Your task to perform on an android device: open app "Contacts" (install if not already installed) Image 0: 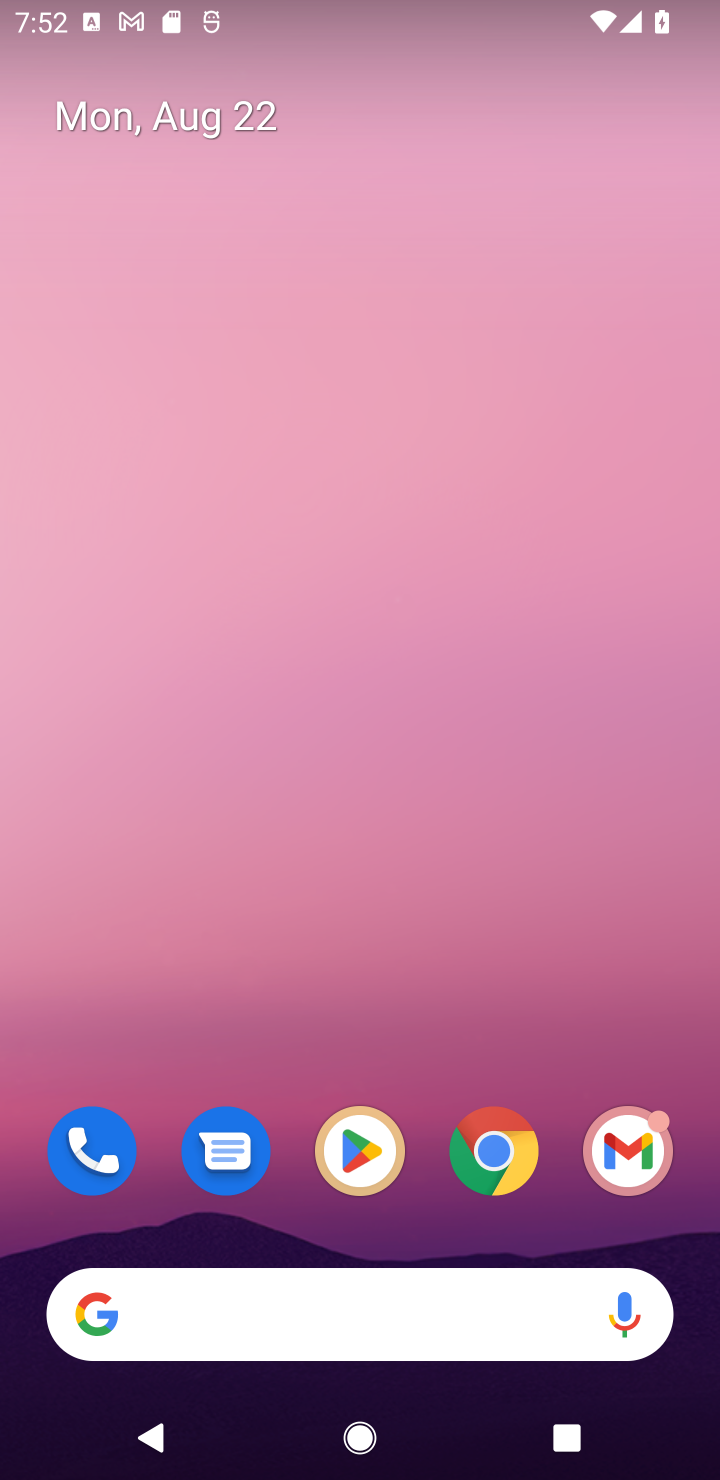
Step 0: click (358, 1154)
Your task to perform on an android device: open app "Contacts" (install if not already installed) Image 1: 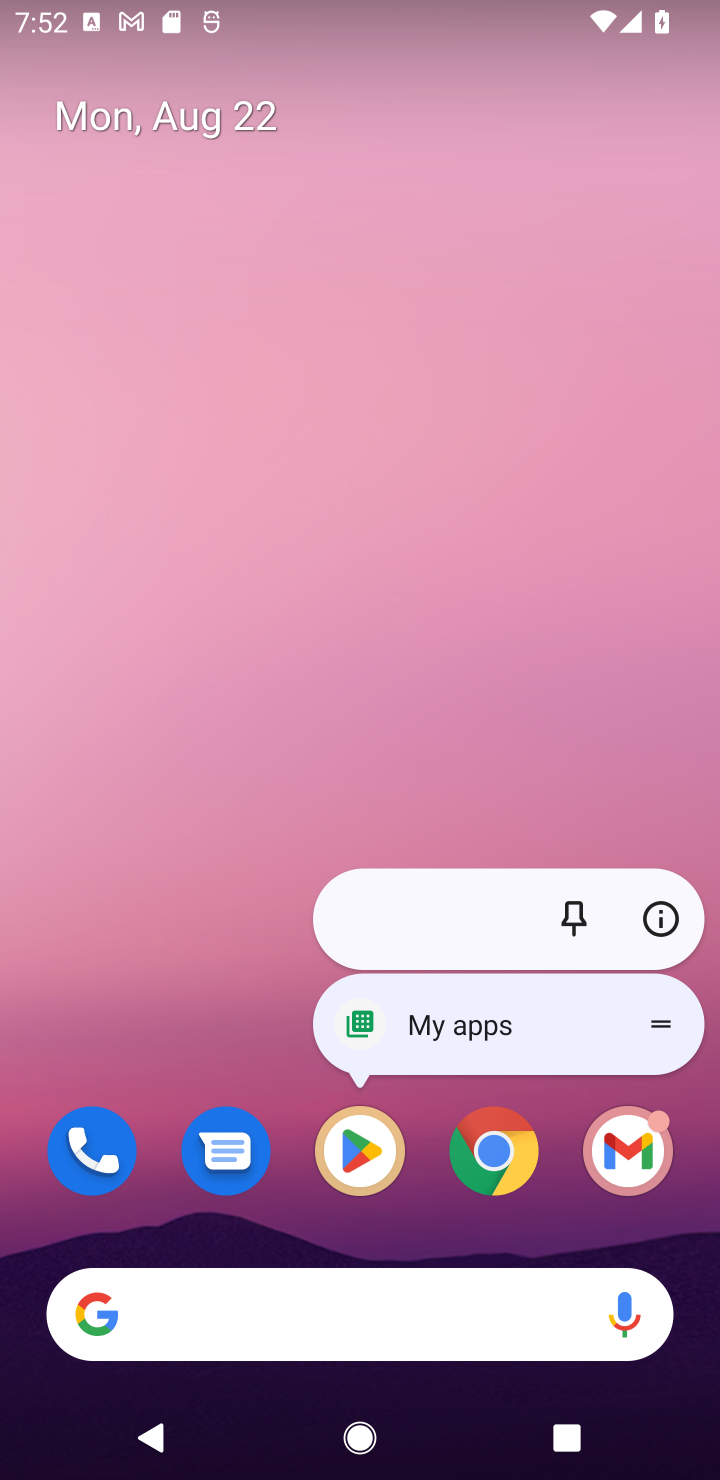
Step 1: click (357, 1138)
Your task to perform on an android device: open app "Contacts" (install if not already installed) Image 2: 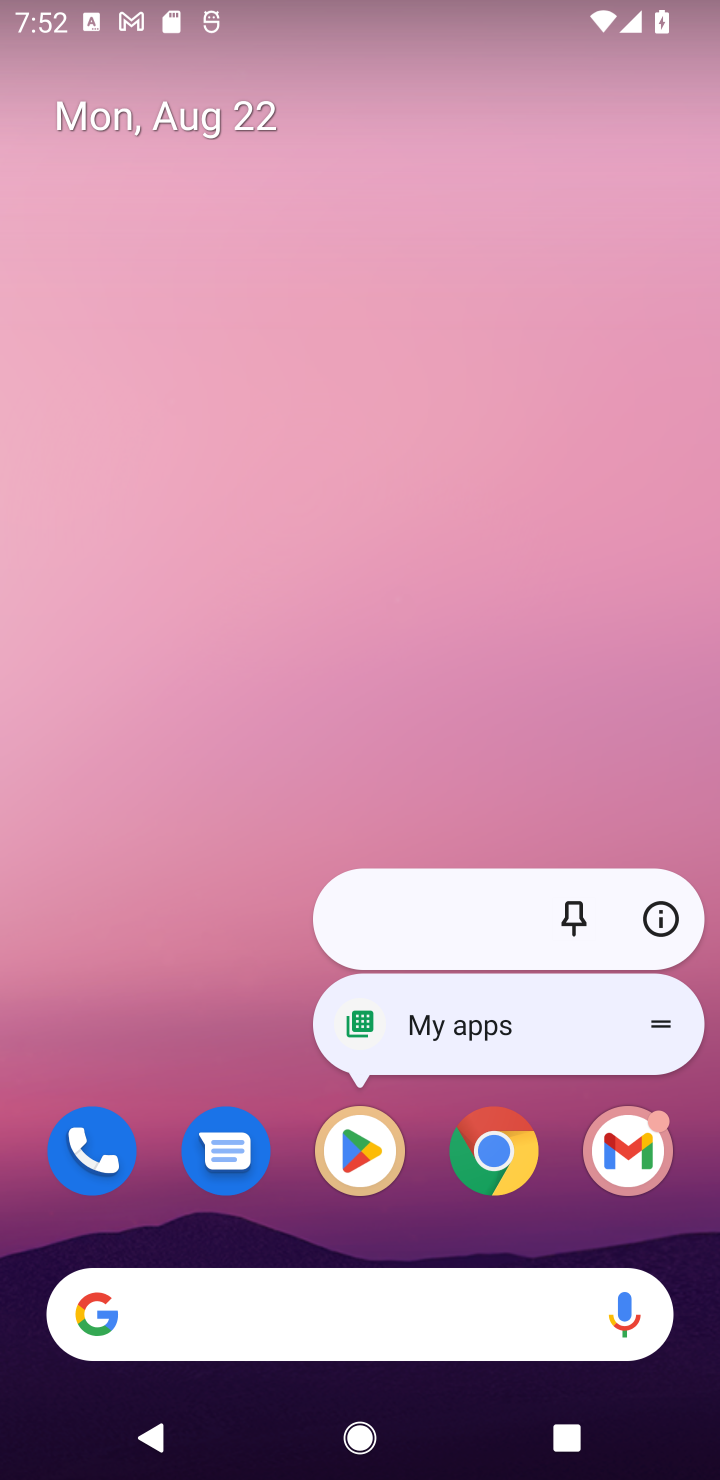
Step 2: click (355, 1148)
Your task to perform on an android device: open app "Contacts" (install if not already installed) Image 3: 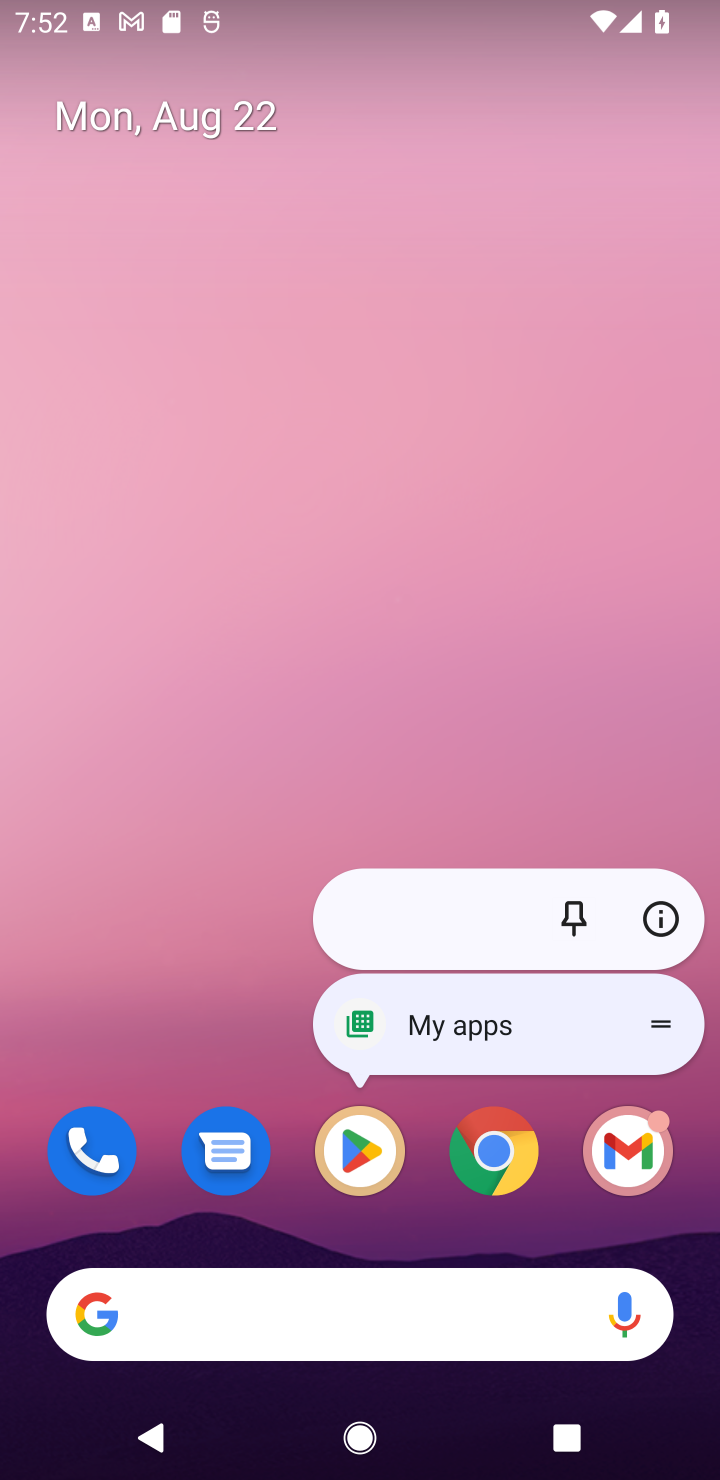
Step 3: click (355, 1149)
Your task to perform on an android device: open app "Contacts" (install if not already installed) Image 4: 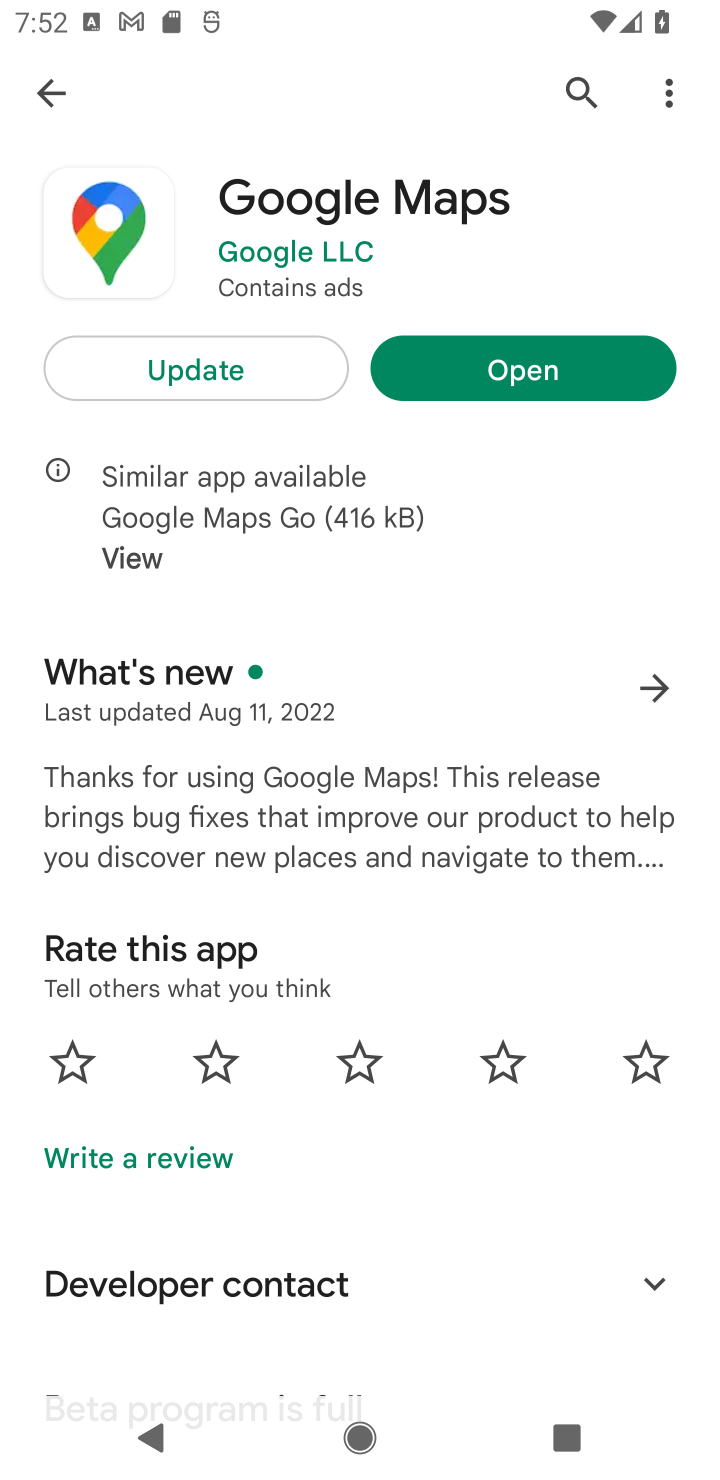
Step 4: click (574, 86)
Your task to perform on an android device: open app "Contacts" (install if not already installed) Image 5: 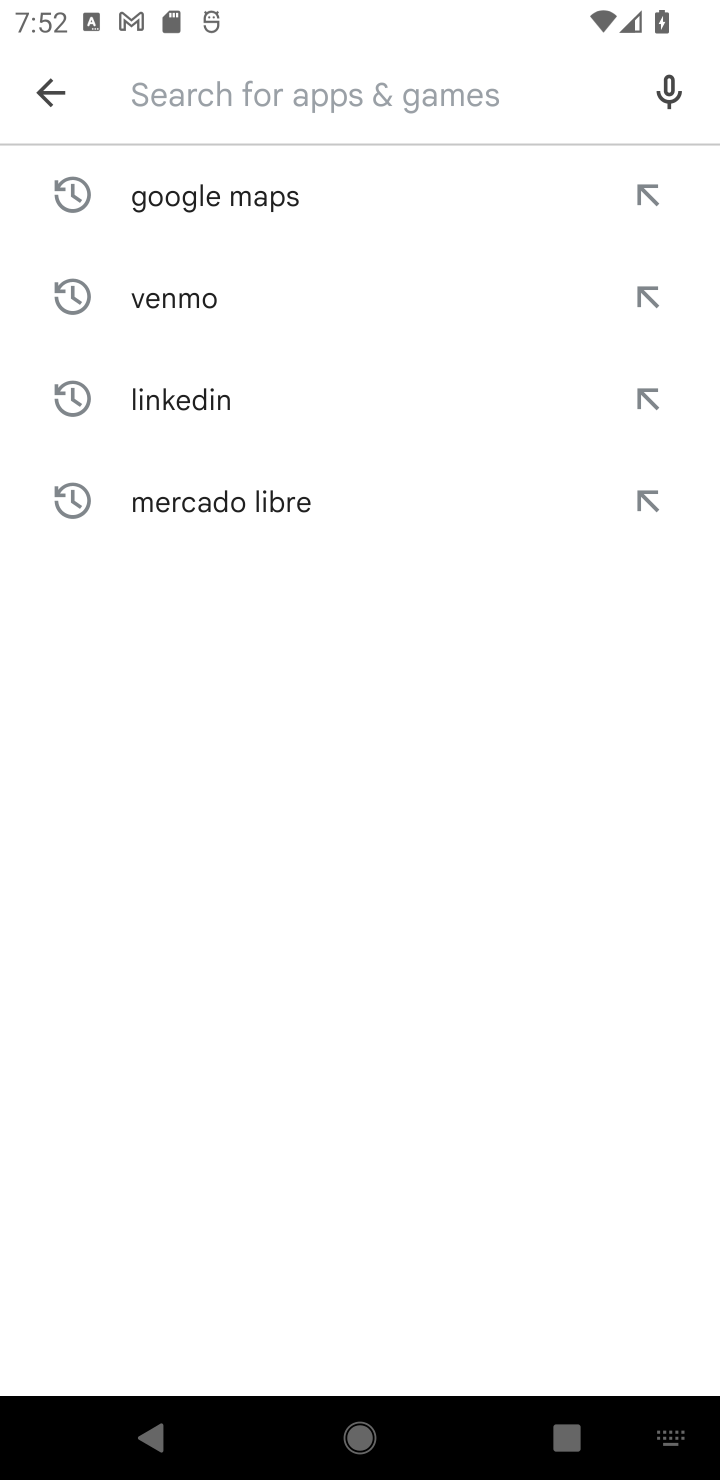
Step 5: type "Contacts"
Your task to perform on an android device: open app "Contacts" (install if not already installed) Image 6: 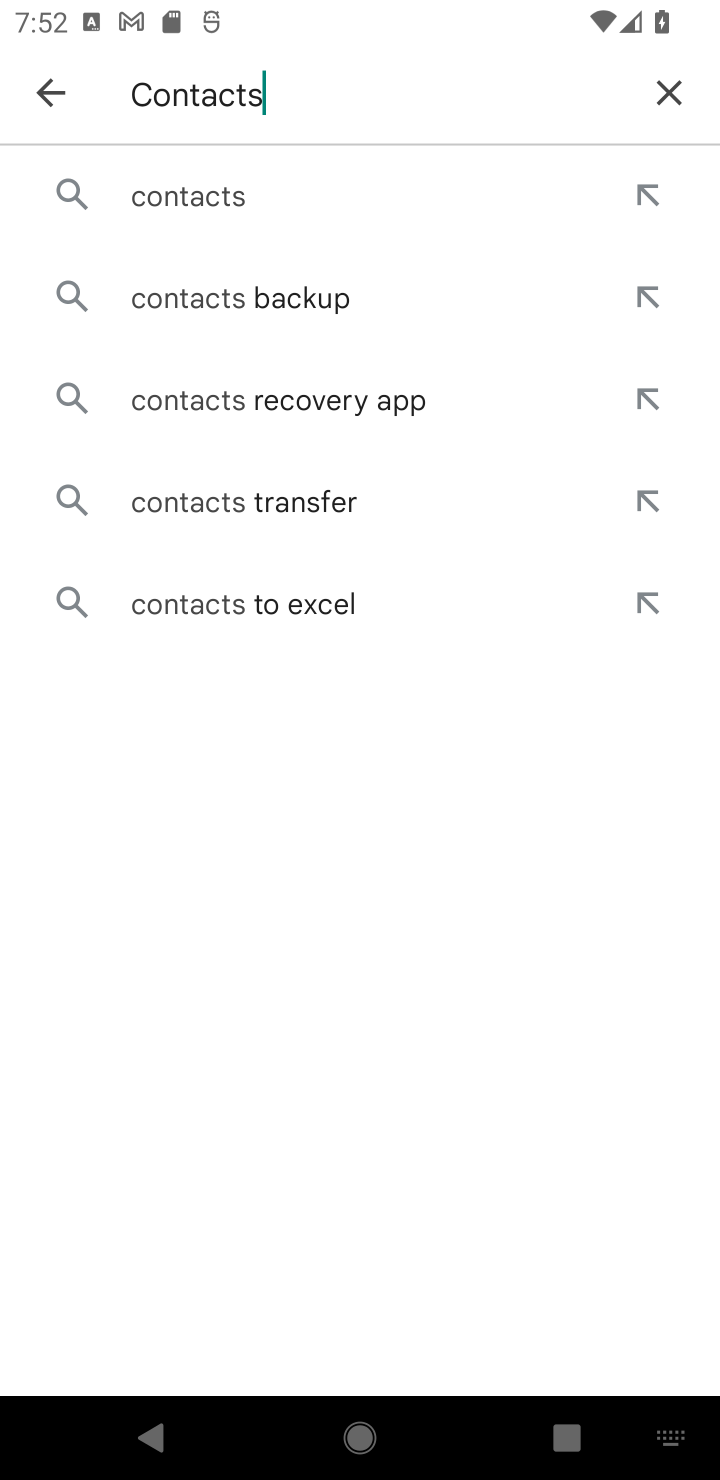
Step 6: click (209, 193)
Your task to perform on an android device: open app "Contacts" (install if not already installed) Image 7: 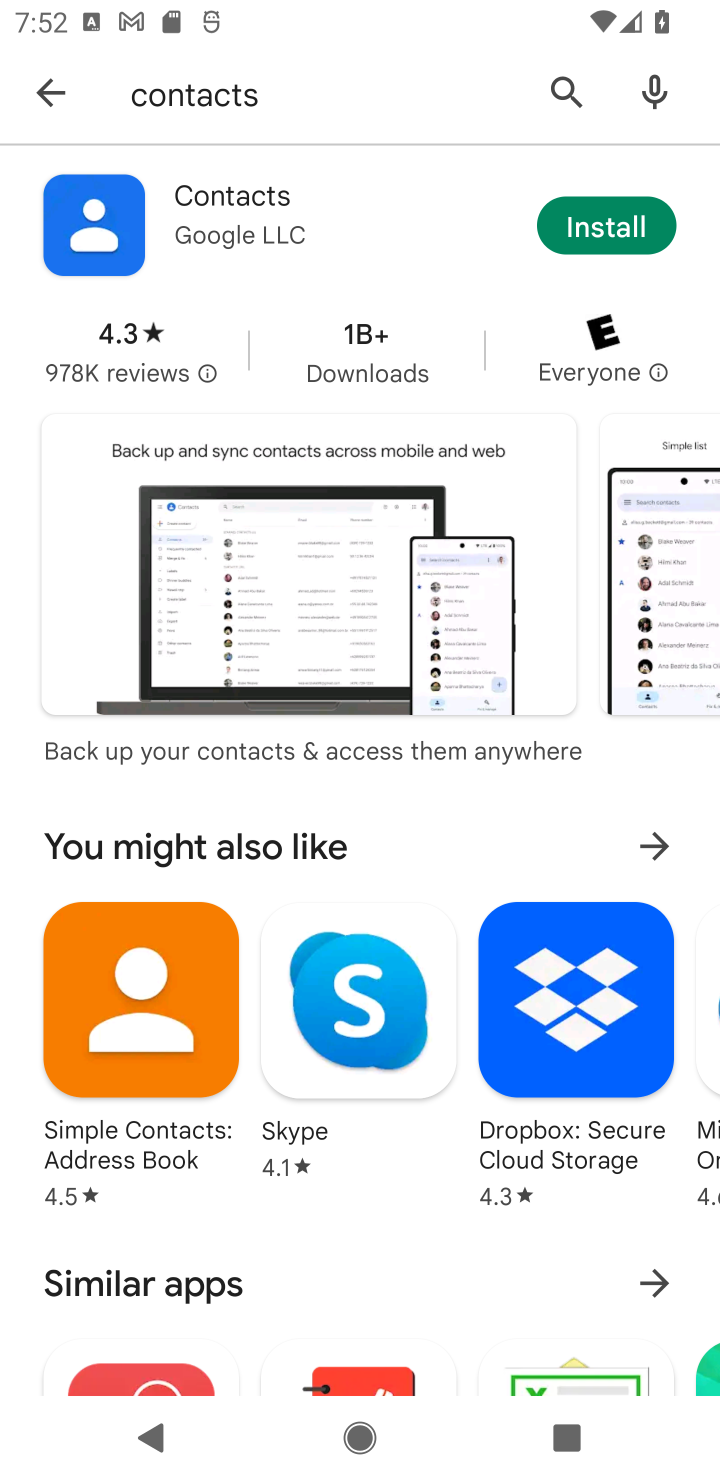
Step 7: click (607, 205)
Your task to perform on an android device: open app "Contacts" (install if not already installed) Image 8: 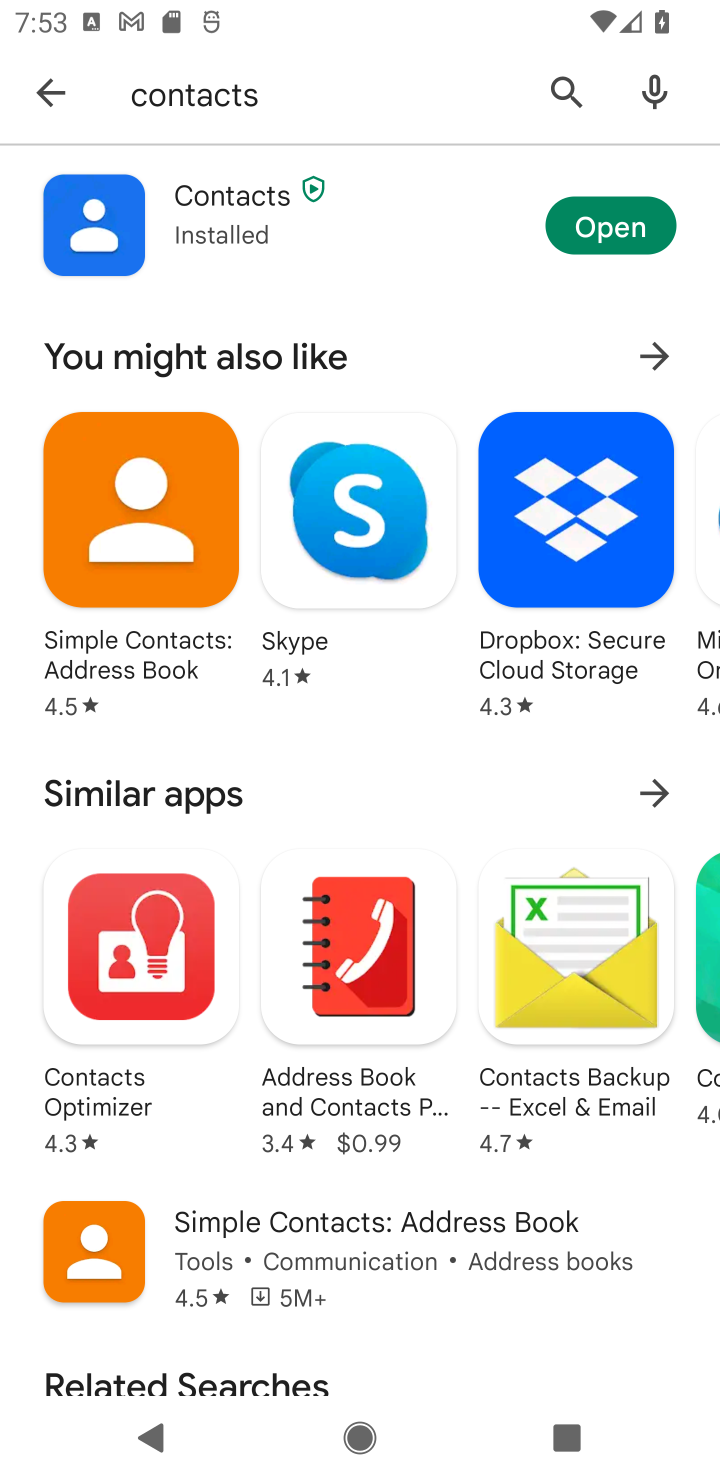
Step 8: click (628, 212)
Your task to perform on an android device: open app "Contacts" (install if not already installed) Image 9: 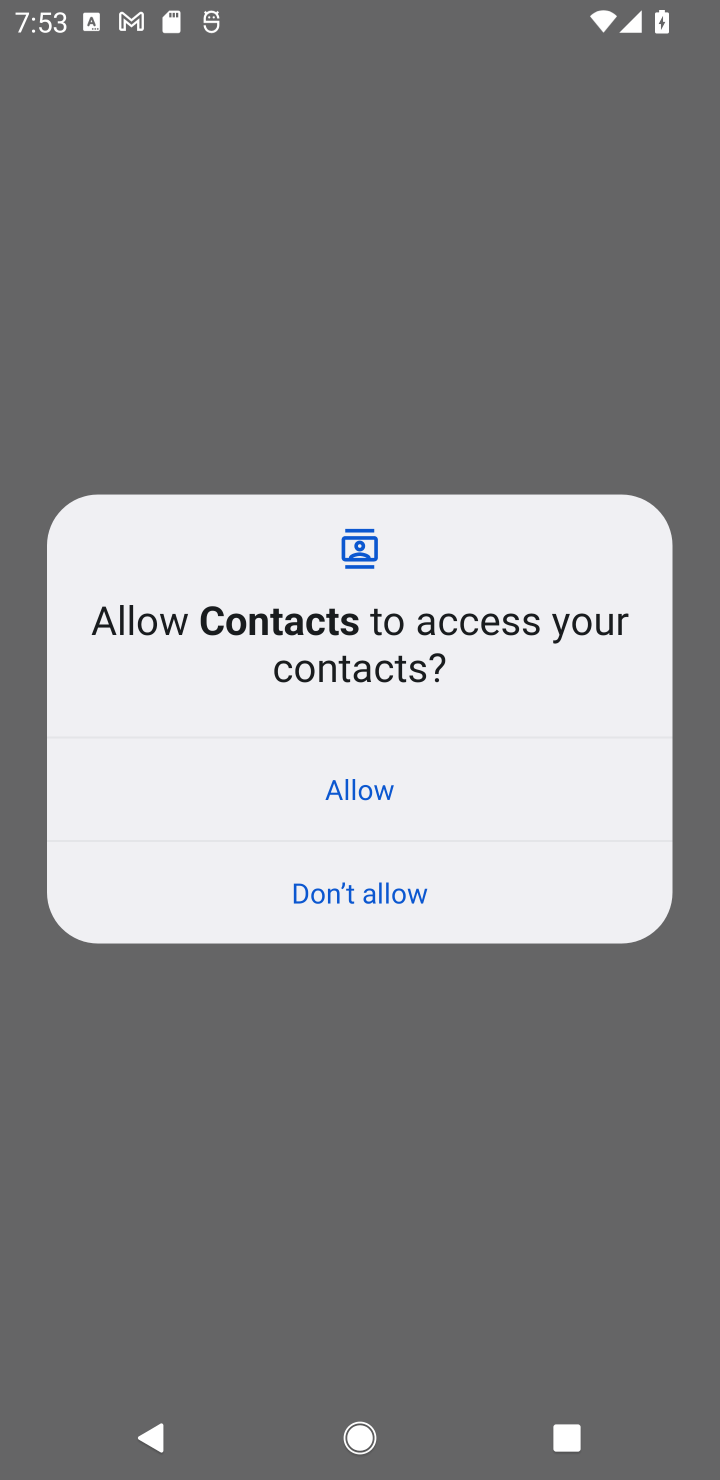
Step 9: task complete